Your task to perform on an android device: When is my next appointment? Image 0: 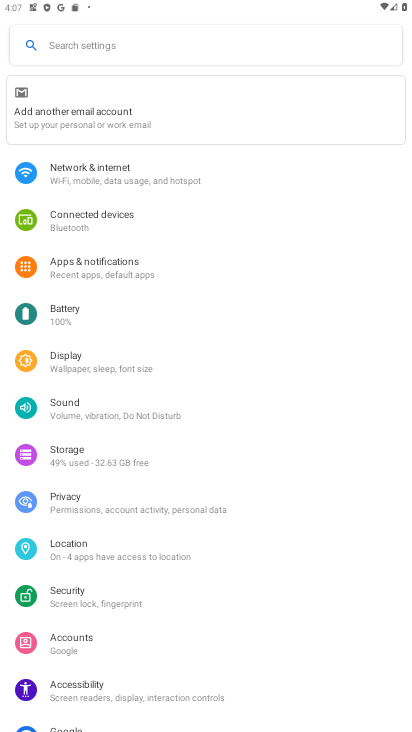
Step 0: press home button
Your task to perform on an android device: When is my next appointment? Image 1: 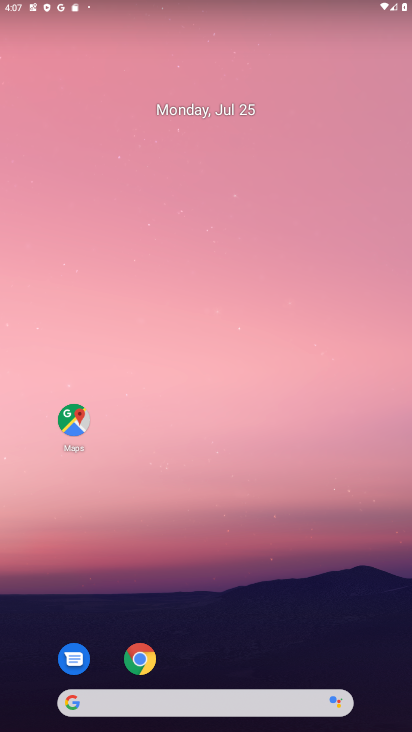
Step 1: drag from (381, 647) to (301, 45)
Your task to perform on an android device: When is my next appointment? Image 2: 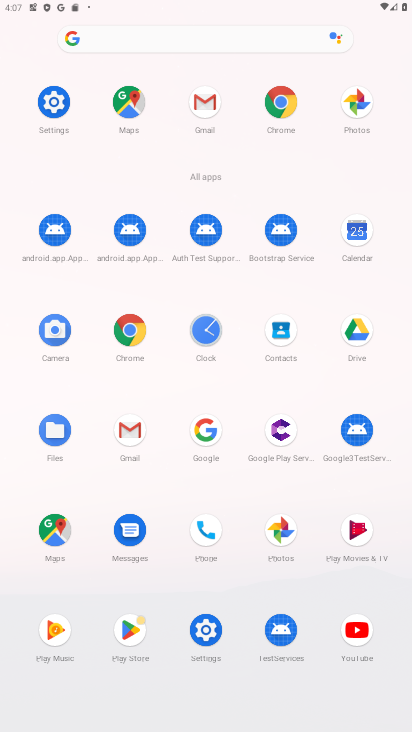
Step 2: click (353, 230)
Your task to perform on an android device: When is my next appointment? Image 3: 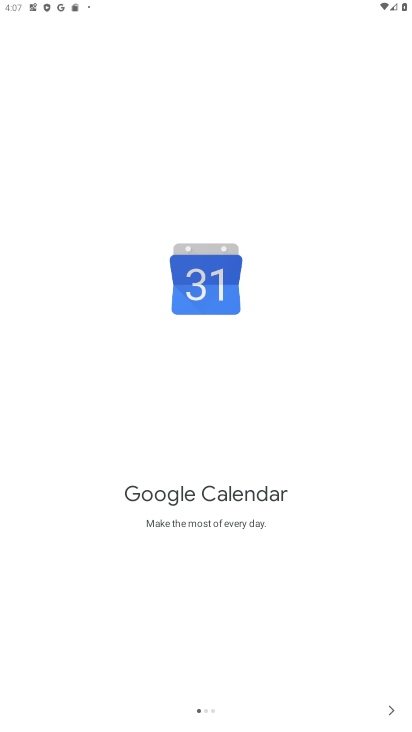
Step 3: click (388, 708)
Your task to perform on an android device: When is my next appointment? Image 4: 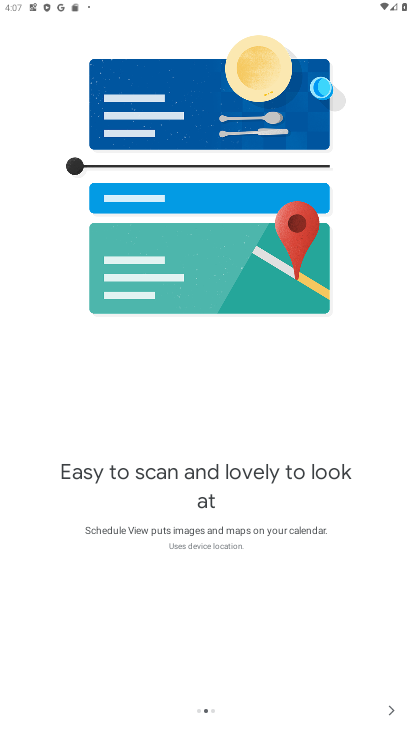
Step 4: click (388, 708)
Your task to perform on an android device: When is my next appointment? Image 5: 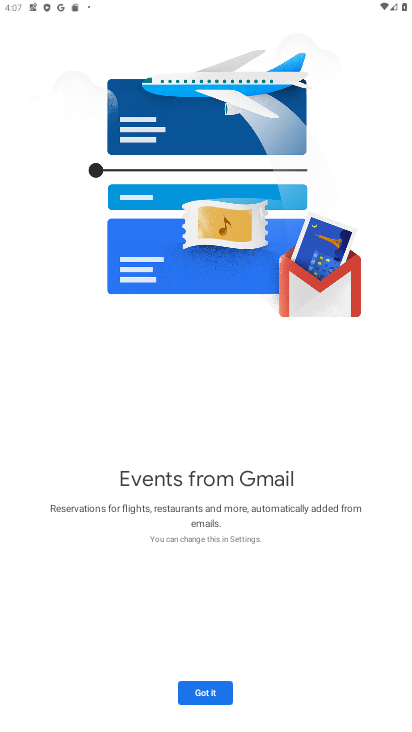
Step 5: click (197, 689)
Your task to perform on an android device: When is my next appointment? Image 6: 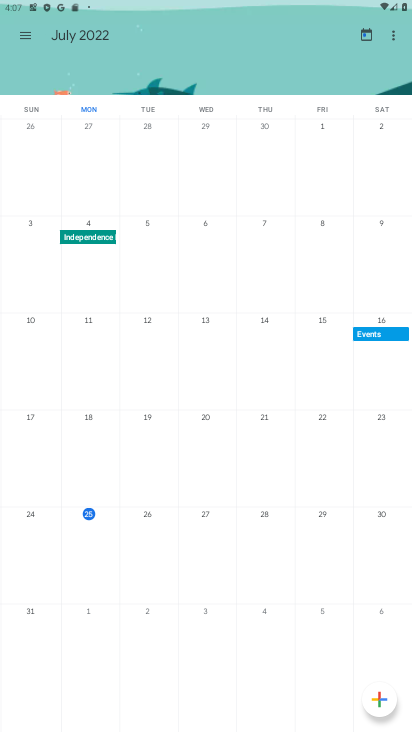
Step 6: click (25, 37)
Your task to perform on an android device: When is my next appointment? Image 7: 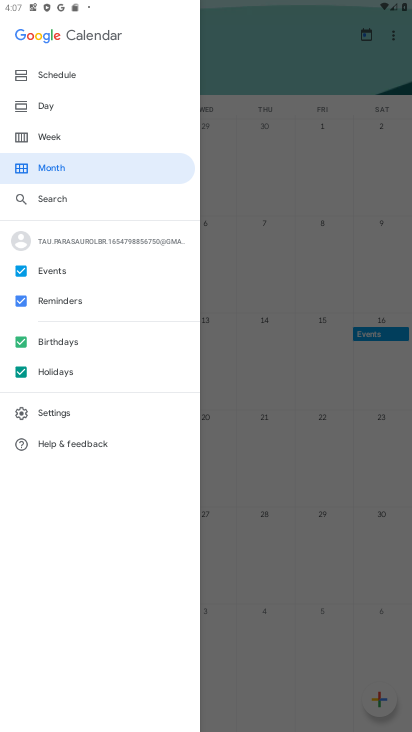
Step 7: click (51, 70)
Your task to perform on an android device: When is my next appointment? Image 8: 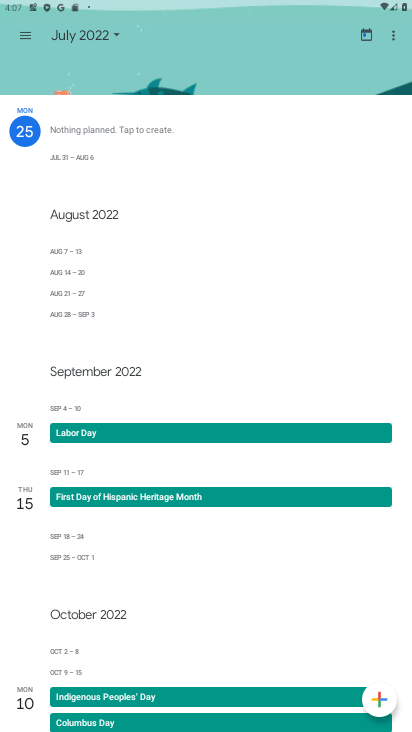
Step 8: task complete